Your task to perform on an android device: check android version Image 0: 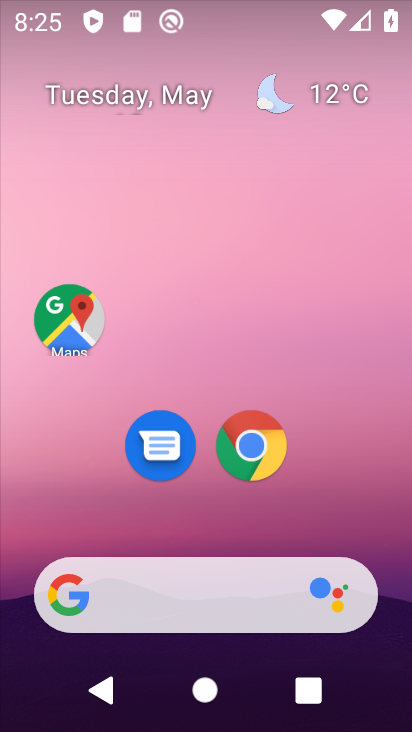
Step 0: click (212, 605)
Your task to perform on an android device: check android version Image 1: 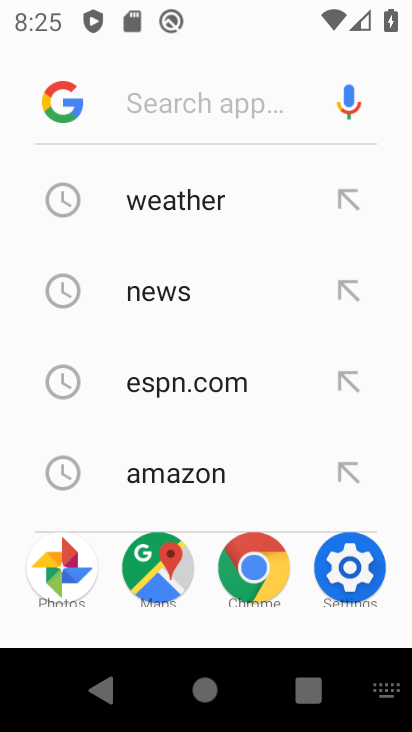
Step 1: click (179, 218)
Your task to perform on an android device: check android version Image 2: 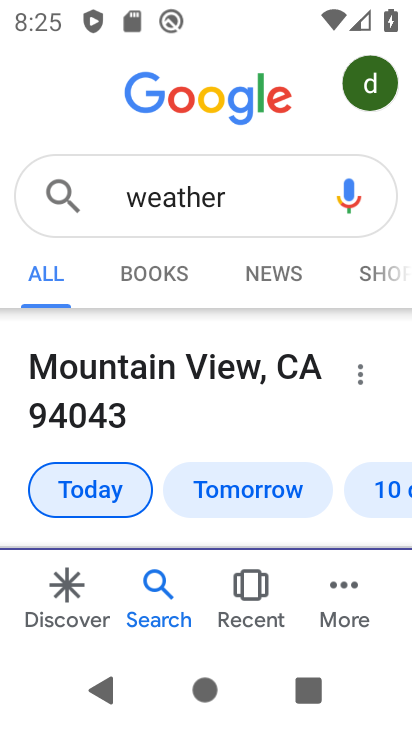
Step 2: task complete